Your task to perform on an android device: What's the weather going to be this weekend? Image 0: 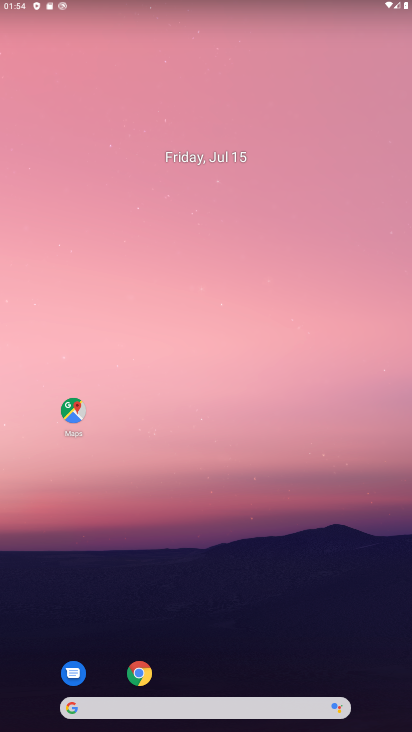
Step 0: drag from (292, 568) to (224, 74)
Your task to perform on an android device: What's the weather going to be this weekend? Image 1: 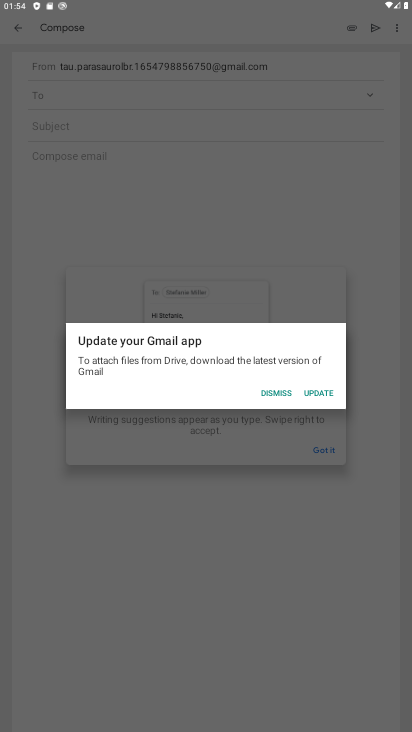
Step 1: press home button
Your task to perform on an android device: What's the weather going to be this weekend? Image 2: 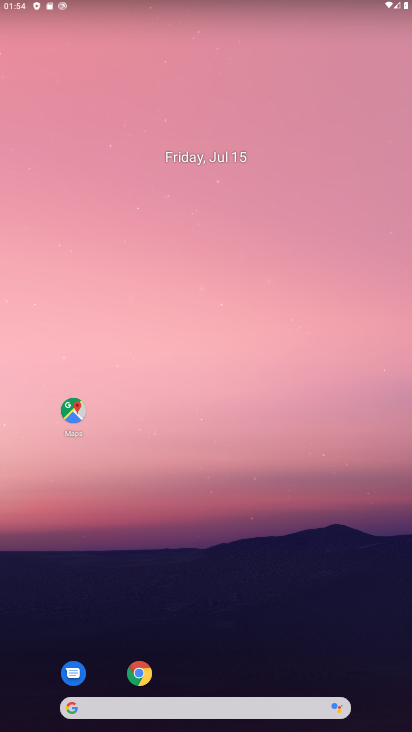
Step 2: drag from (292, 522) to (225, 125)
Your task to perform on an android device: What's the weather going to be this weekend? Image 3: 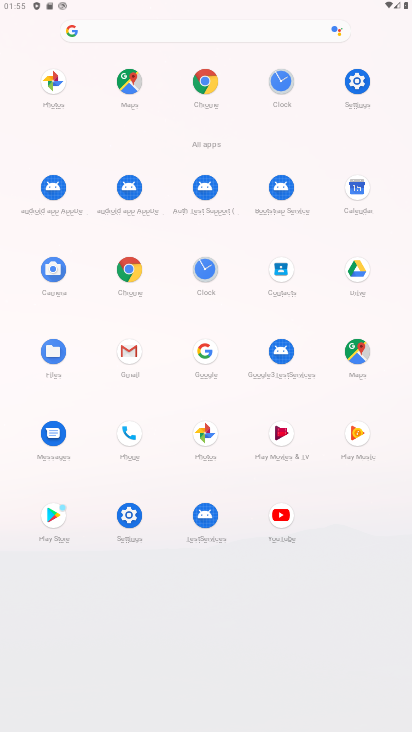
Step 3: click (195, 355)
Your task to perform on an android device: What's the weather going to be this weekend? Image 4: 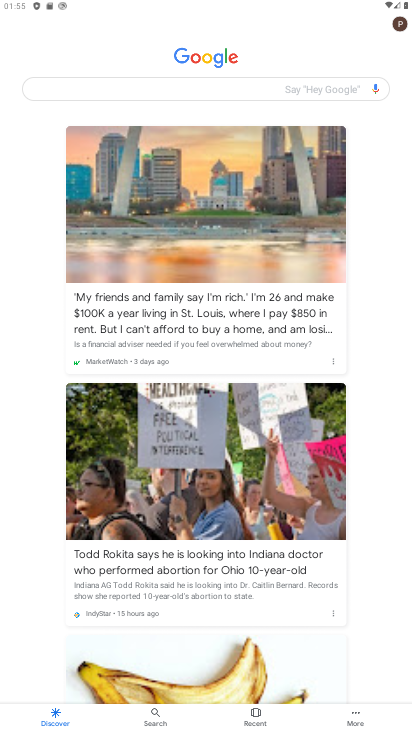
Step 4: click (182, 77)
Your task to perform on an android device: What's the weather going to be this weekend? Image 5: 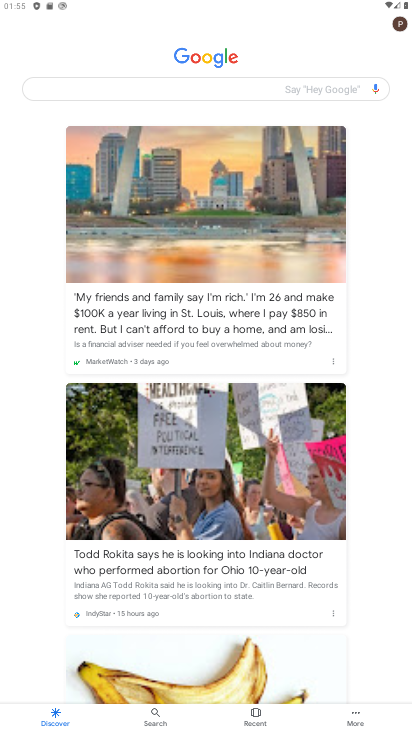
Step 5: click (241, 83)
Your task to perform on an android device: What's the weather going to be this weekend? Image 6: 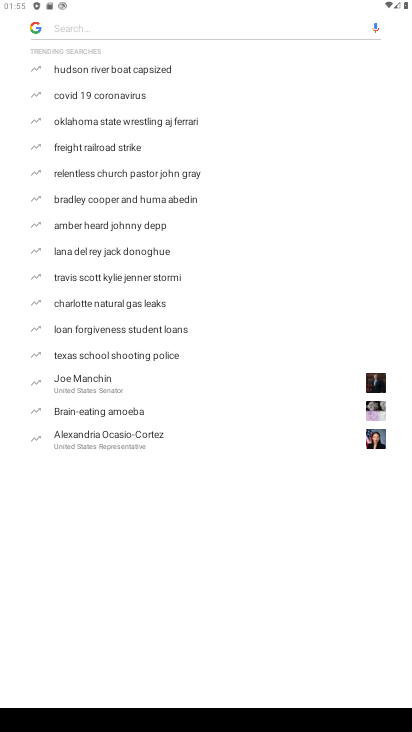
Step 6: type "weather"
Your task to perform on an android device: What's the weather going to be this weekend? Image 7: 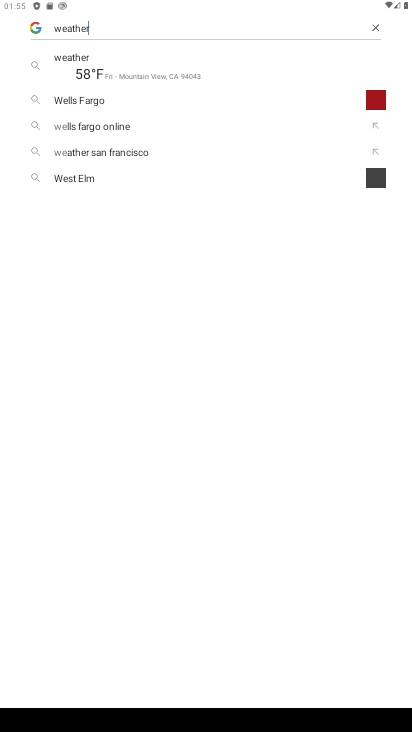
Step 7: press enter
Your task to perform on an android device: What's the weather going to be this weekend? Image 8: 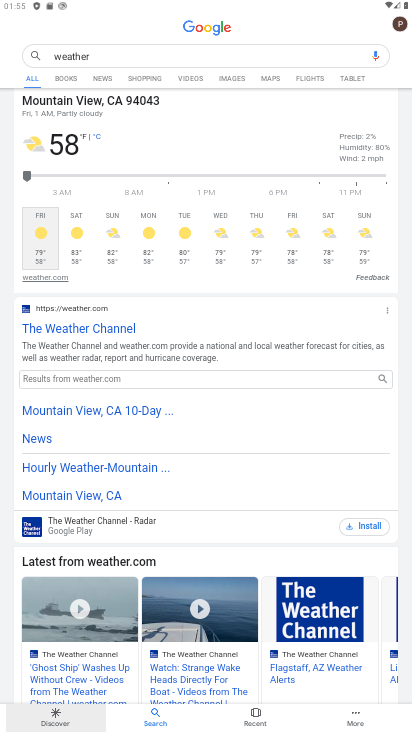
Step 8: task complete